Your task to perform on an android device: turn off priority inbox in the gmail app Image 0: 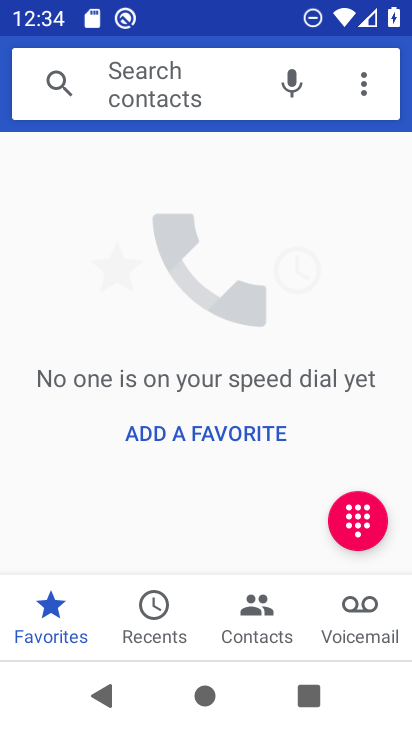
Step 0: press home button
Your task to perform on an android device: turn off priority inbox in the gmail app Image 1: 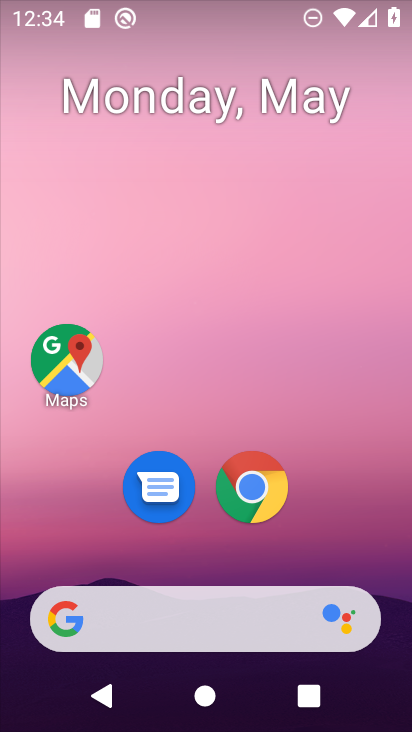
Step 1: drag from (336, 560) to (284, 50)
Your task to perform on an android device: turn off priority inbox in the gmail app Image 2: 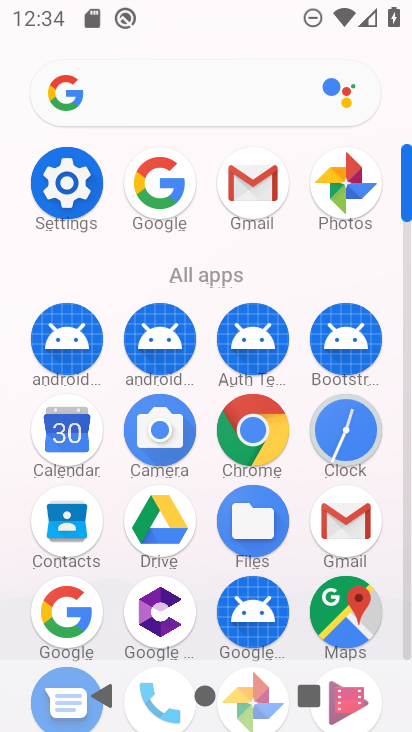
Step 2: click (253, 185)
Your task to perform on an android device: turn off priority inbox in the gmail app Image 3: 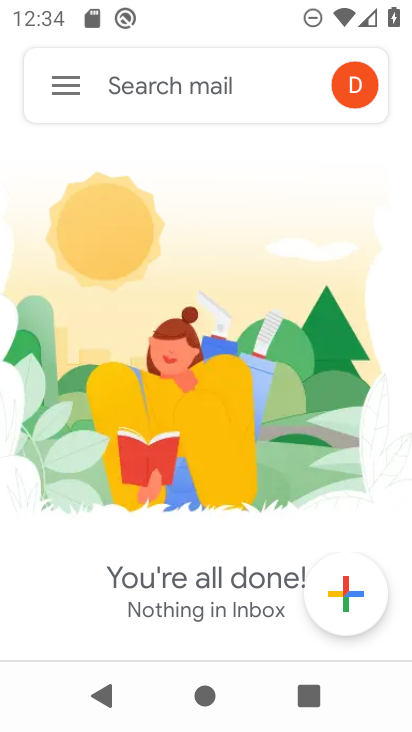
Step 3: click (66, 83)
Your task to perform on an android device: turn off priority inbox in the gmail app Image 4: 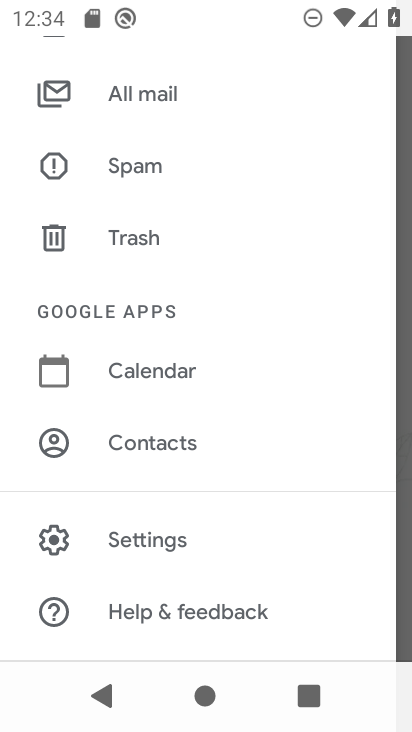
Step 4: click (163, 540)
Your task to perform on an android device: turn off priority inbox in the gmail app Image 5: 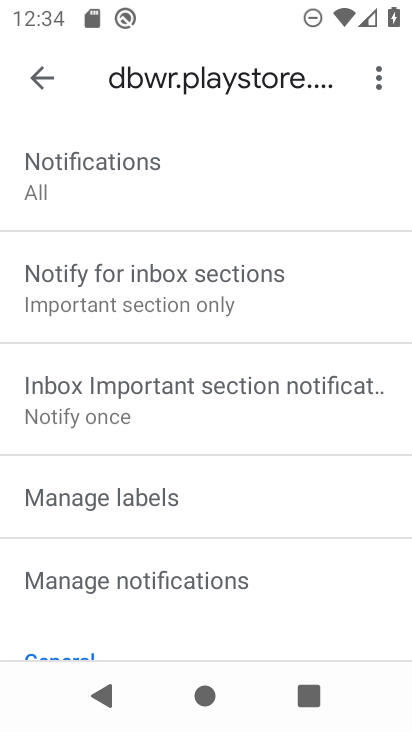
Step 5: drag from (141, 207) to (130, 393)
Your task to perform on an android device: turn off priority inbox in the gmail app Image 6: 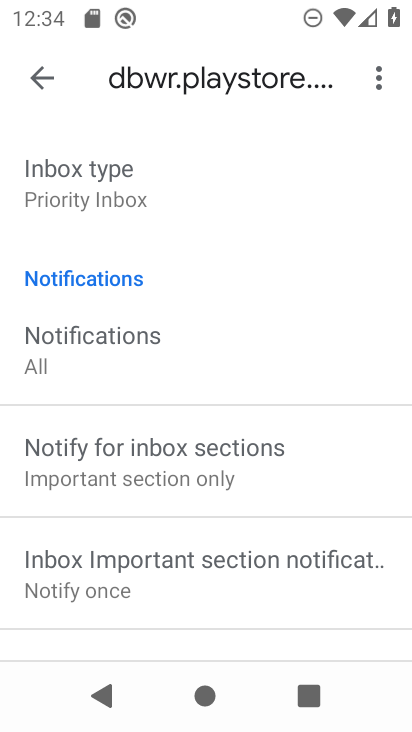
Step 6: drag from (121, 212) to (137, 465)
Your task to perform on an android device: turn off priority inbox in the gmail app Image 7: 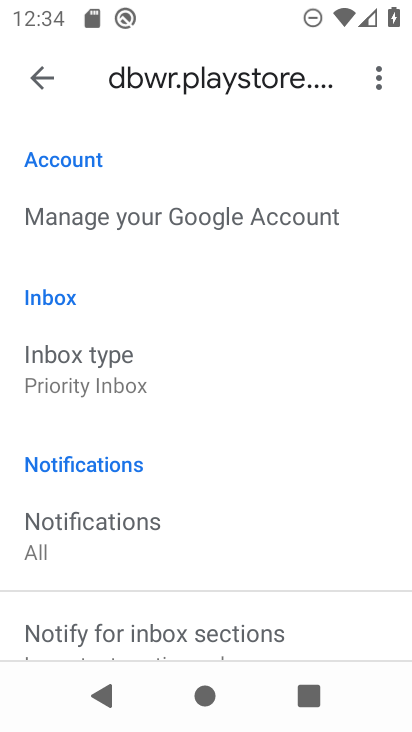
Step 7: click (97, 383)
Your task to perform on an android device: turn off priority inbox in the gmail app Image 8: 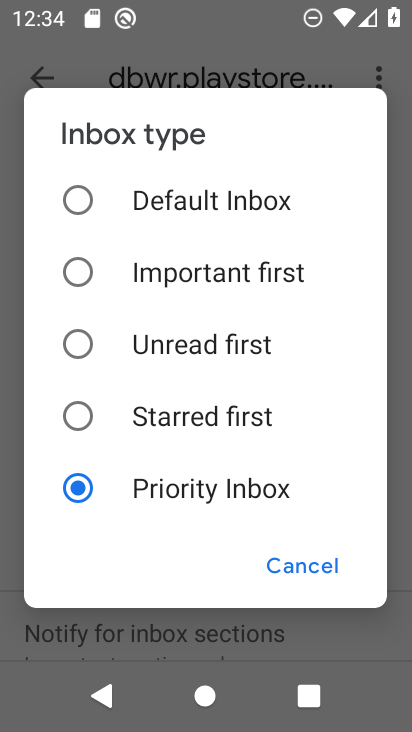
Step 8: click (74, 414)
Your task to perform on an android device: turn off priority inbox in the gmail app Image 9: 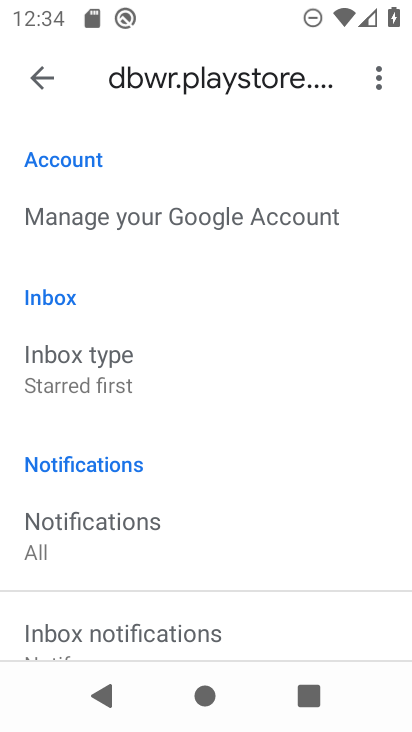
Step 9: task complete